Your task to perform on an android device: Open Google Image 0: 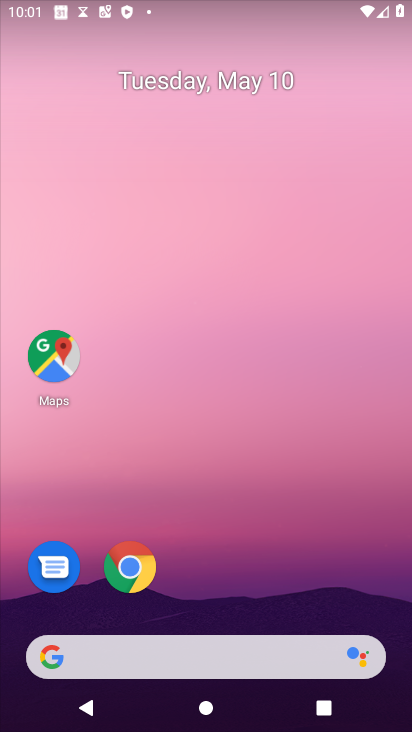
Step 0: click (61, 654)
Your task to perform on an android device: Open Google Image 1: 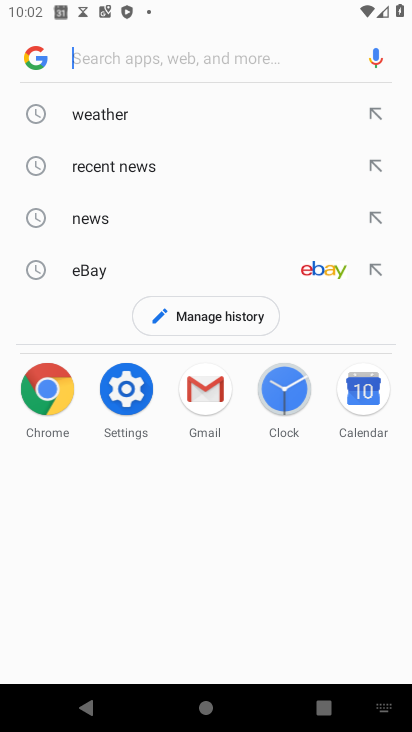
Step 1: click (36, 52)
Your task to perform on an android device: Open Google Image 2: 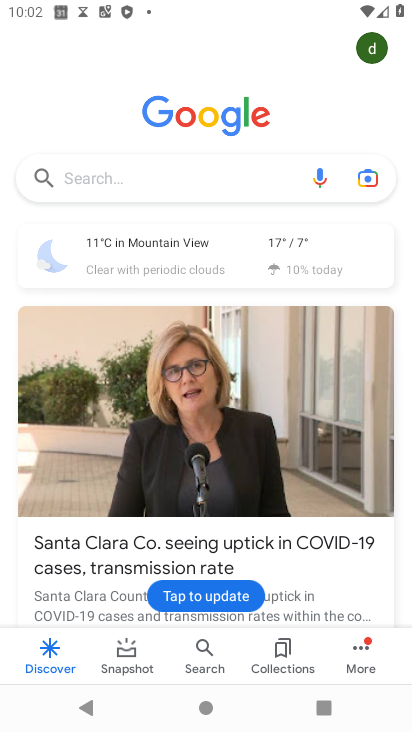
Step 2: task complete